Your task to perform on an android device: Go to wifi settings Image 0: 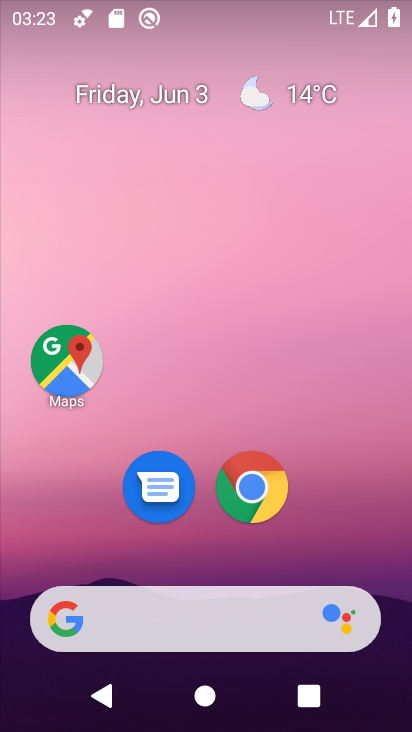
Step 0: click (273, 486)
Your task to perform on an android device: Go to wifi settings Image 1: 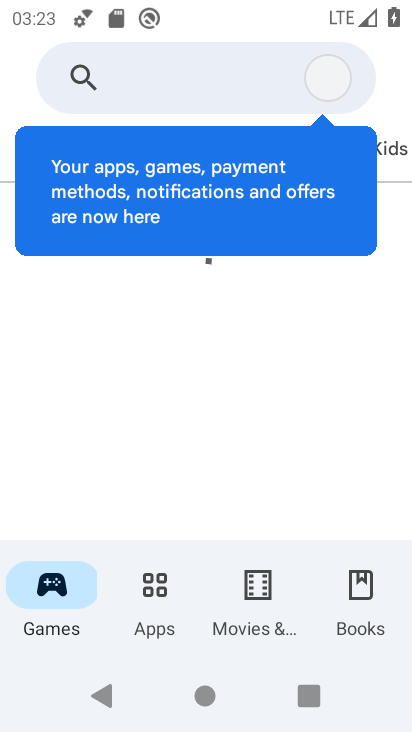
Step 1: press home button
Your task to perform on an android device: Go to wifi settings Image 2: 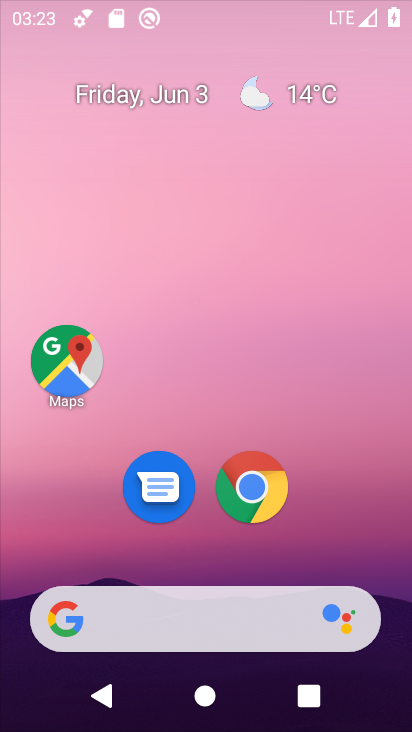
Step 2: drag from (308, 378) to (164, 57)
Your task to perform on an android device: Go to wifi settings Image 3: 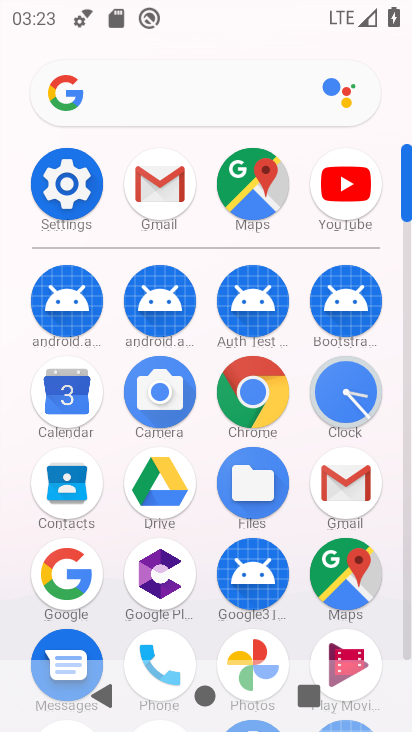
Step 3: click (71, 178)
Your task to perform on an android device: Go to wifi settings Image 4: 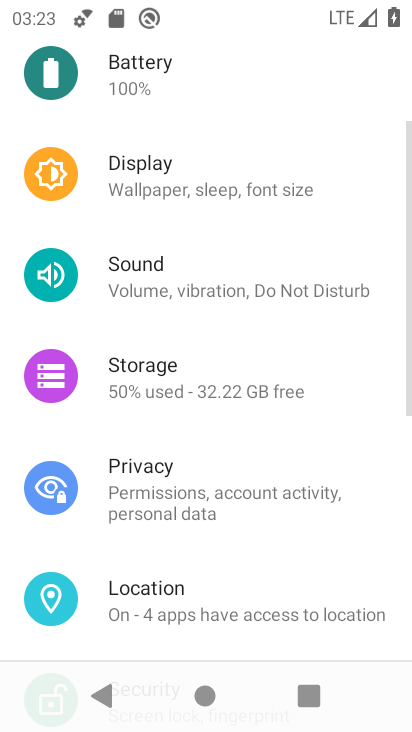
Step 4: drag from (215, 148) to (214, 634)
Your task to perform on an android device: Go to wifi settings Image 5: 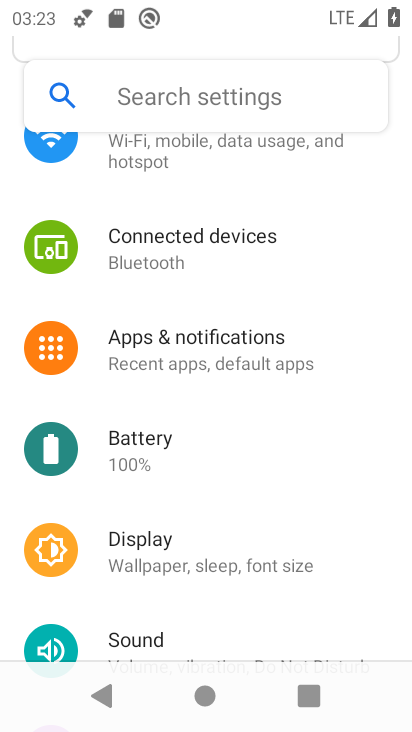
Step 5: click (202, 148)
Your task to perform on an android device: Go to wifi settings Image 6: 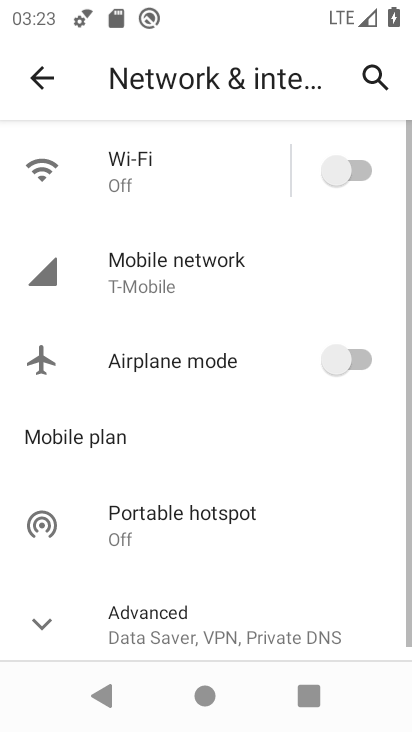
Step 6: click (135, 180)
Your task to perform on an android device: Go to wifi settings Image 7: 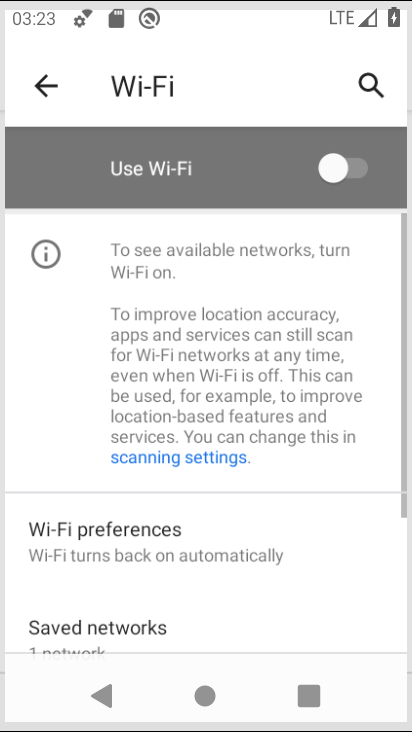
Step 7: task complete